Your task to perform on an android device: turn off smart reply in the gmail app Image 0: 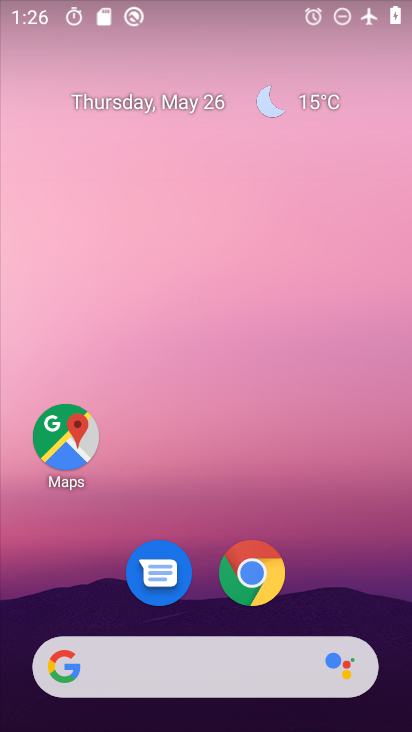
Step 0: drag from (353, 614) to (355, 13)
Your task to perform on an android device: turn off smart reply in the gmail app Image 1: 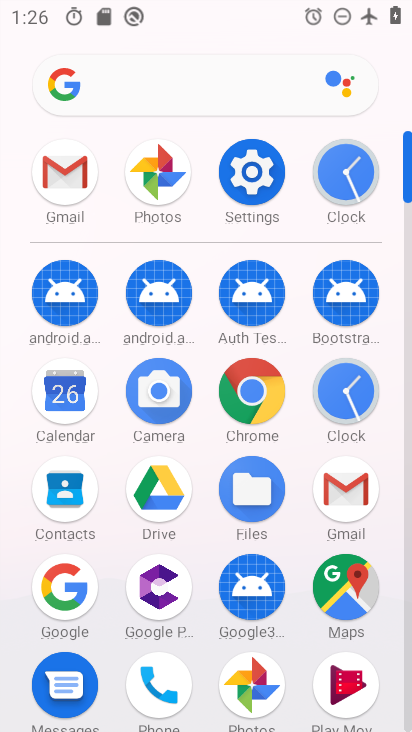
Step 1: click (66, 176)
Your task to perform on an android device: turn off smart reply in the gmail app Image 2: 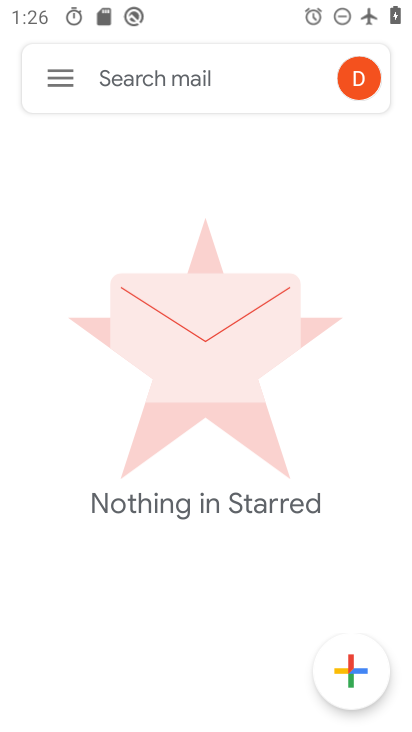
Step 2: click (61, 78)
Your task to perform on an android device: turn off smart reply in the gmail app Image 3: 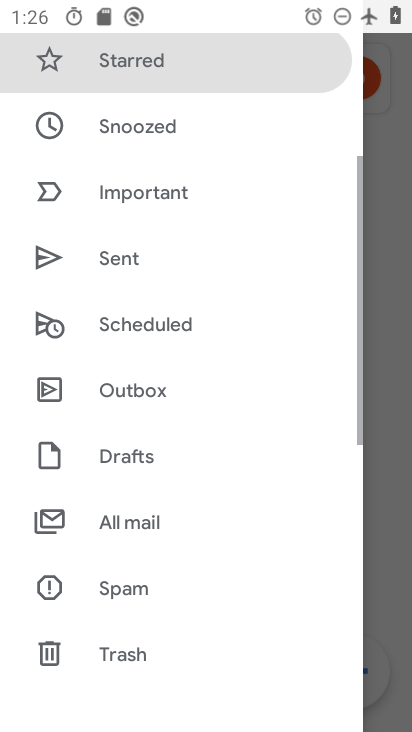
Step 3: drag from (204, 569) to (264, 146)
Your task to perform on an android device: turn off smart reply in the gmail app Image 4: 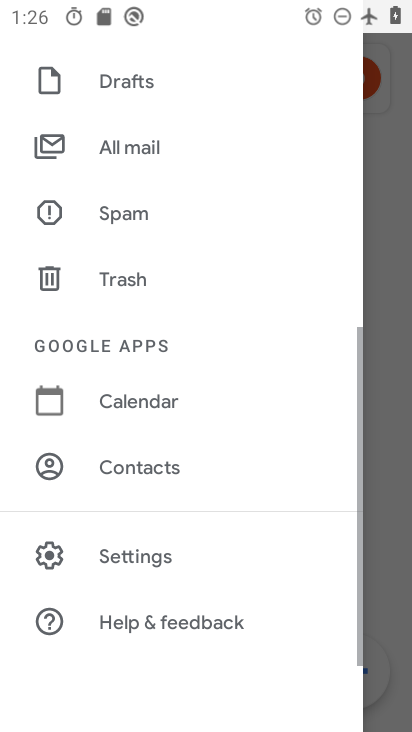
Step 4: click (122, 560)
Your task to perform on an android device: turn off smart reply in the gmail app Image 5: 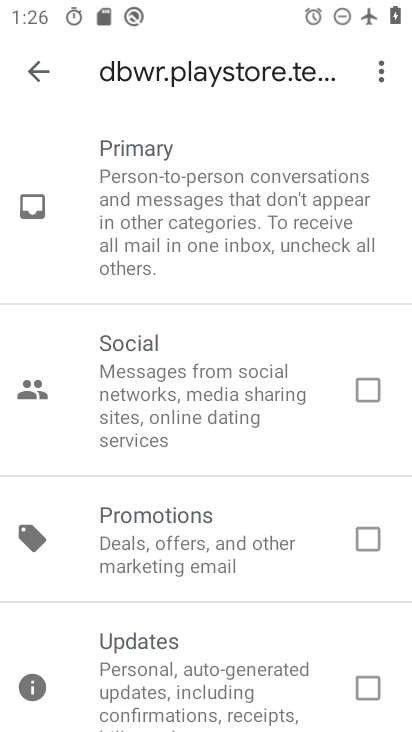
Step 5: click (39, 76)
Your task to perform on an android device: turn off smart reply in the gmail app Image 6: 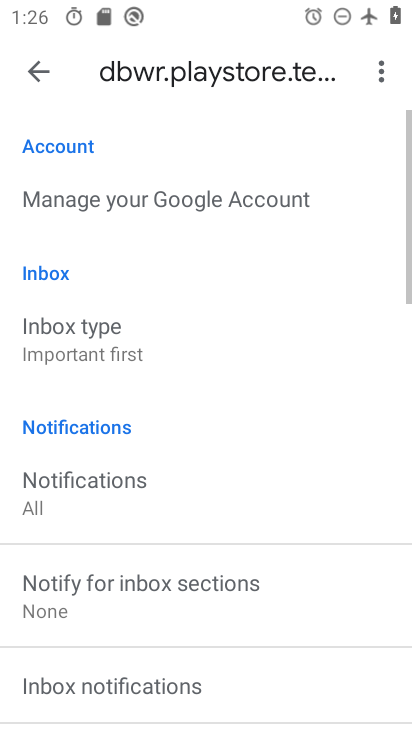
Step 6: task complete